Your task to perform on an android device: show emergency info Image 0: 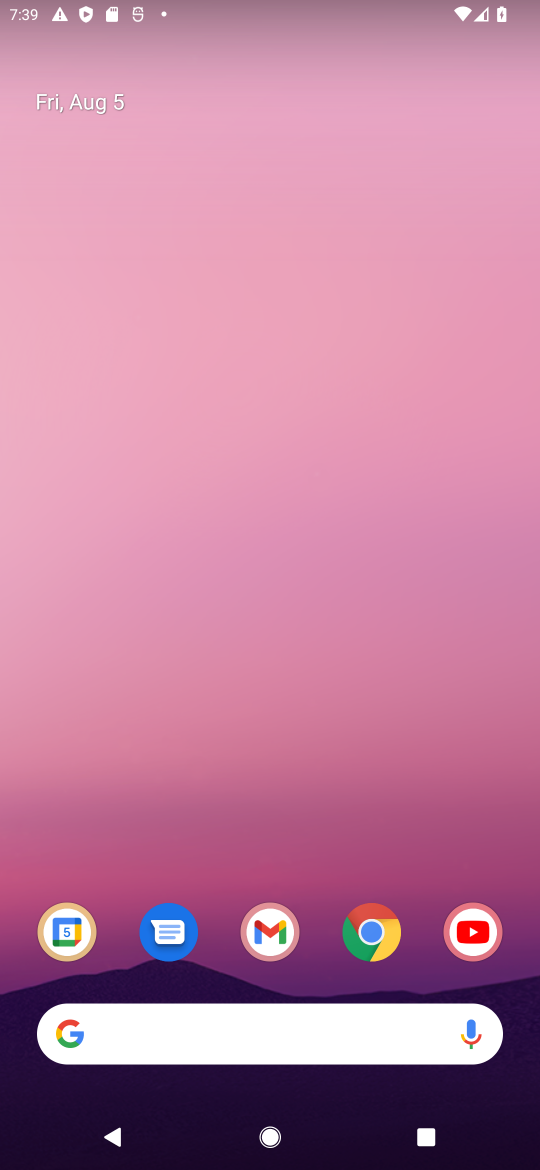
Step 0: drag from (231, 1033) to (348, 361)
Your task to perform on an android device: show emergency info Image 1: 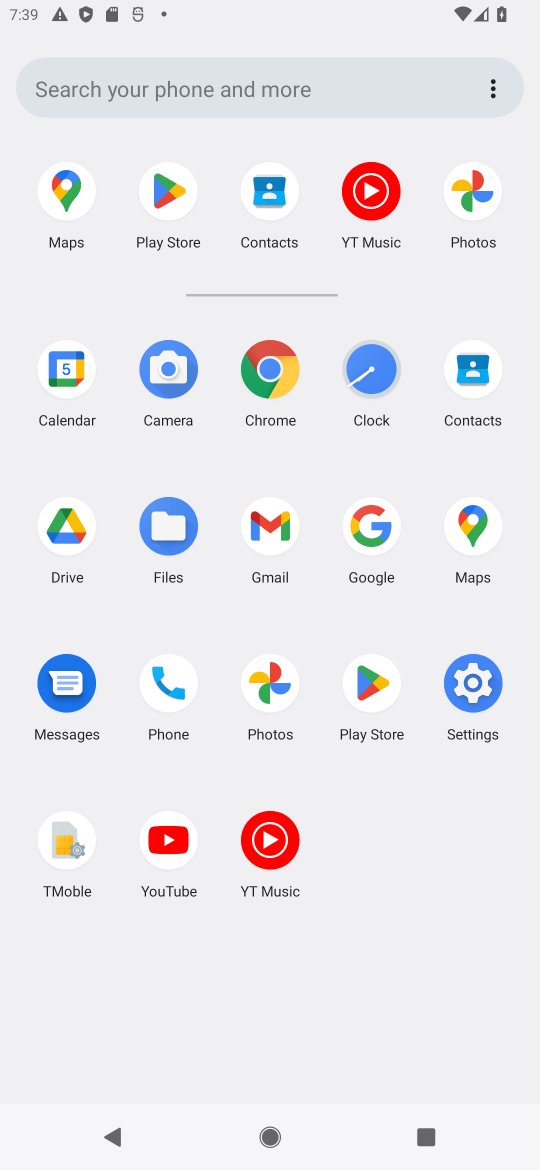
Step 1: click (469, 684)
Your task to perform on an android device: show emergency info Image 2: 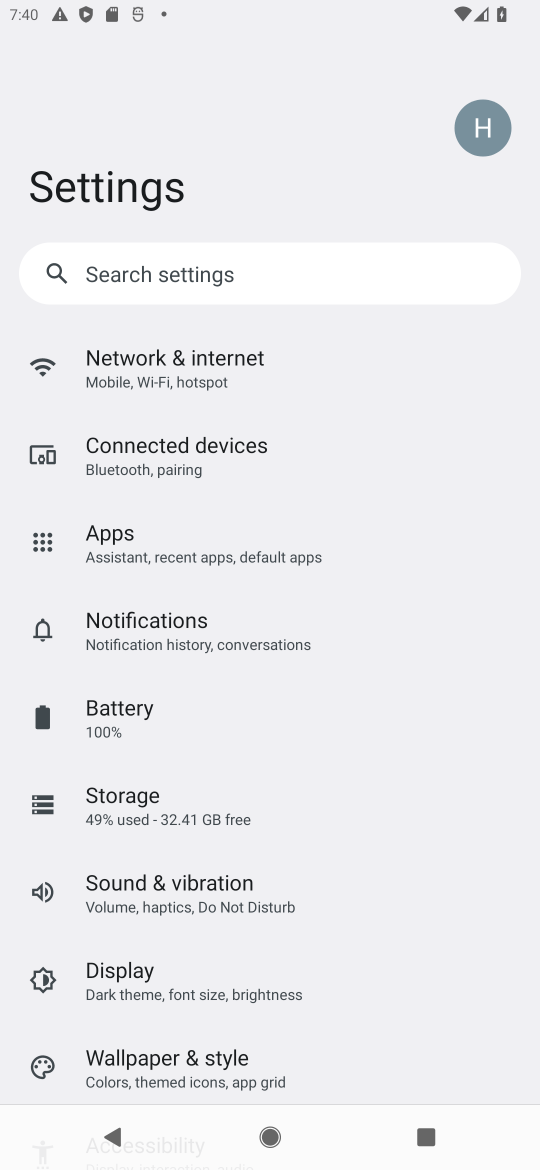
Step 2: drag from (178, 759) to (186, 583)
Your task to perform on an android device: show emergency info Image 3: 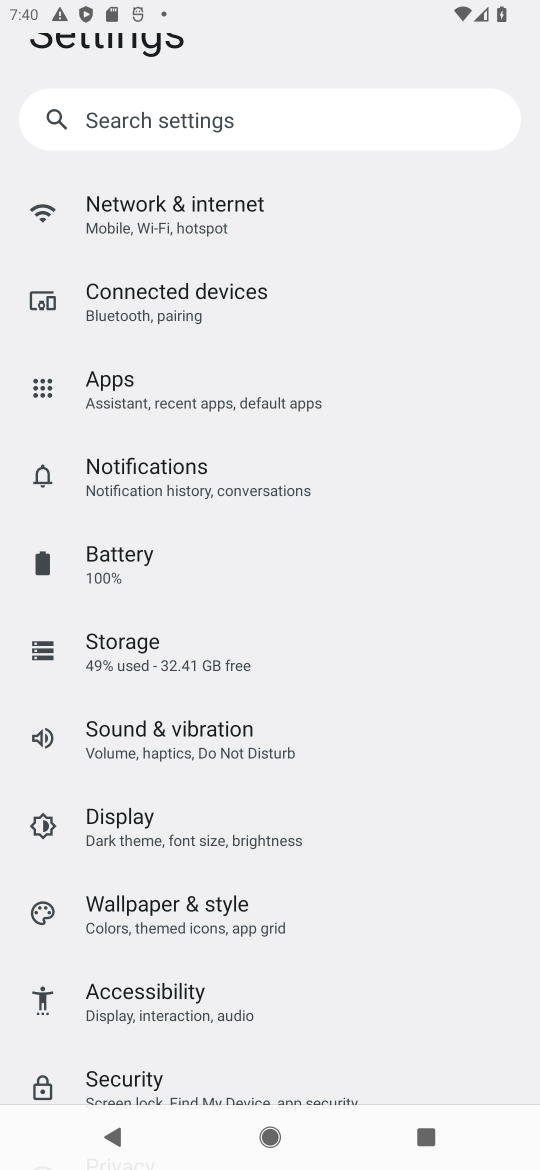
Step 3: drag from (184, 782) to (209, 598)
Your task to perform on an android device: show emergency info Image 4: 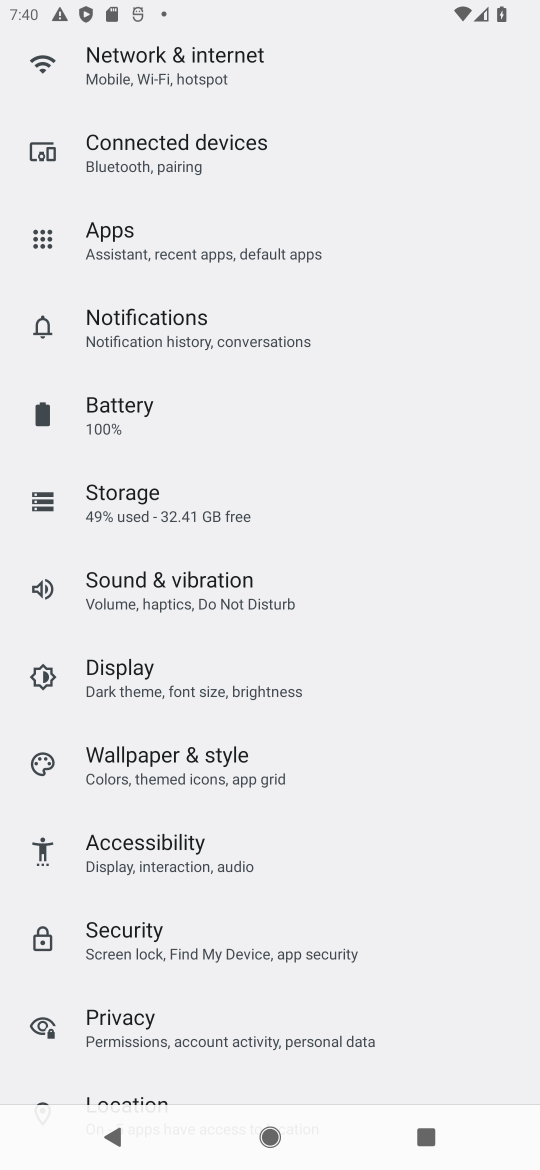
Step 4: drag from (161, 789) to (219, 627)
Your task to perform on an android device: show emergency info Image 5: 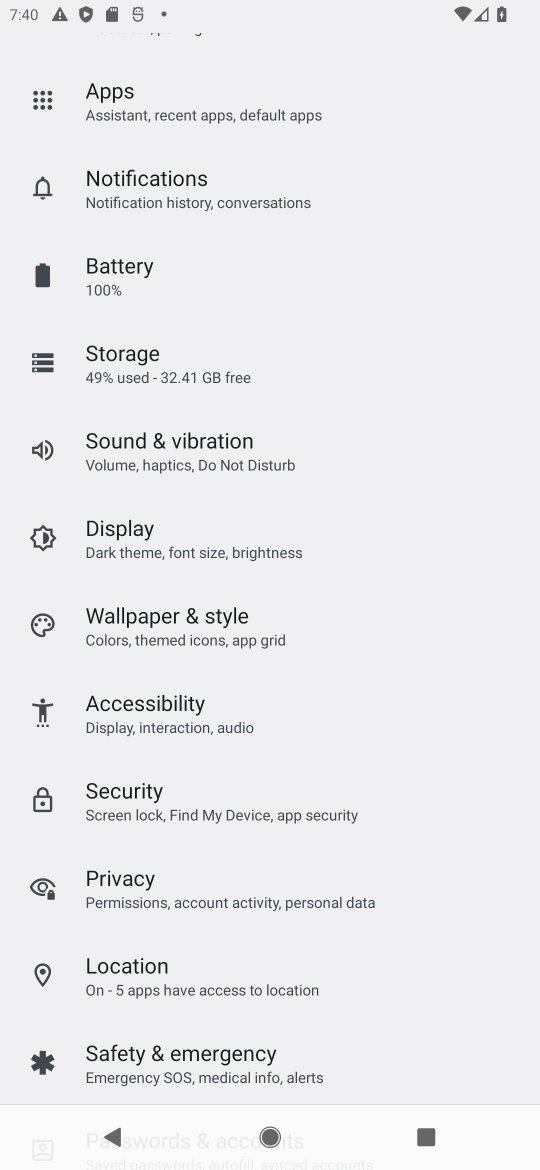
Step 5: drag from (168, 848) to (242, 682)
Your task to perform on an android device: show emergency info Image 6: 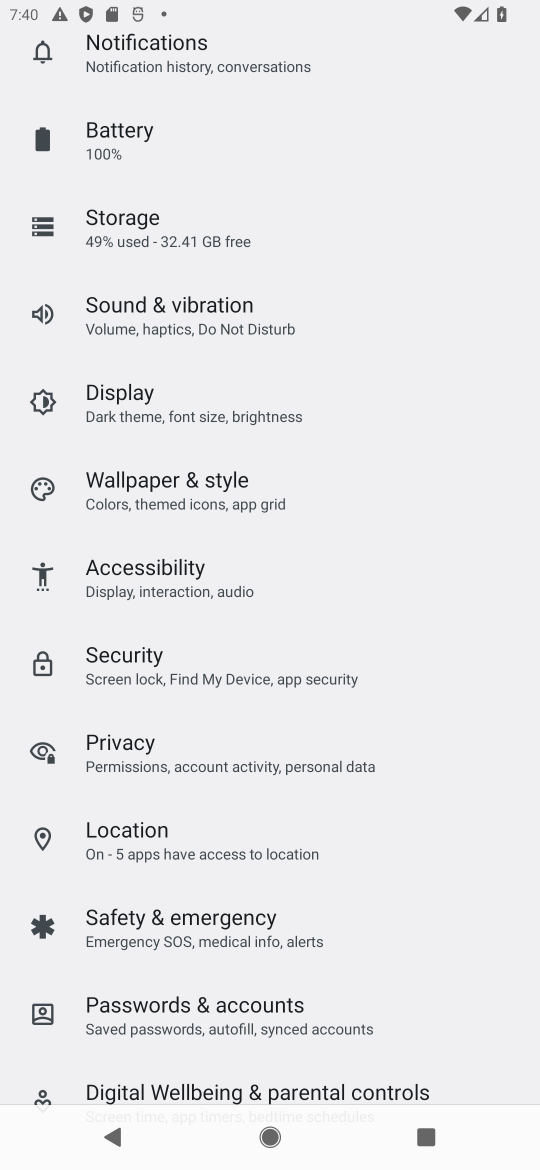
Step 6: drag from (199, 874) to (282, 686)
Your task to perform on an android device: show emergency info Image 7: 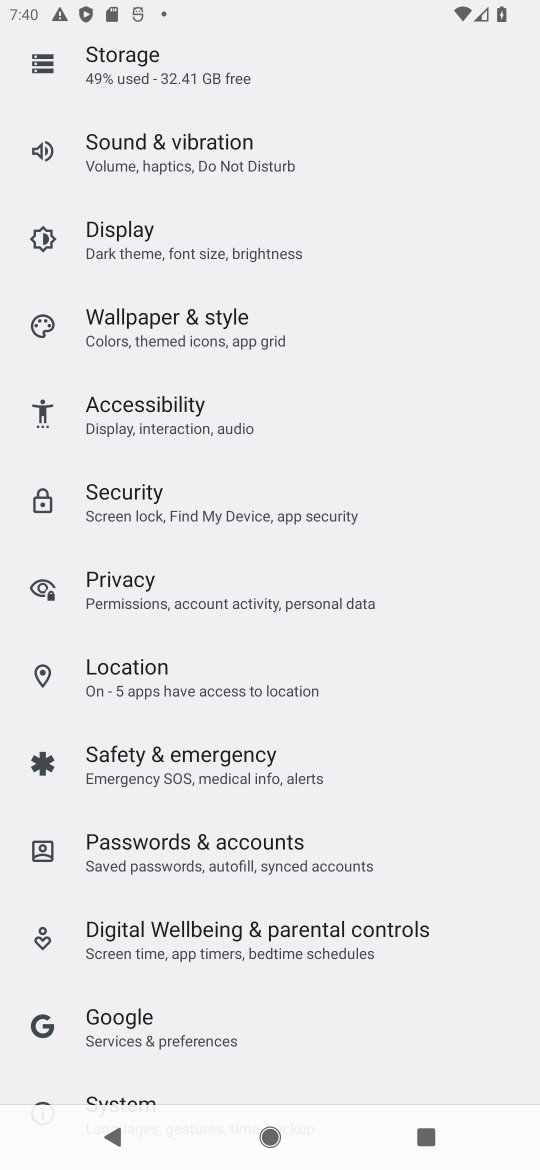
Step 7: click (234, 764)
Your task to perform on an android device: show emergency info Image 8: 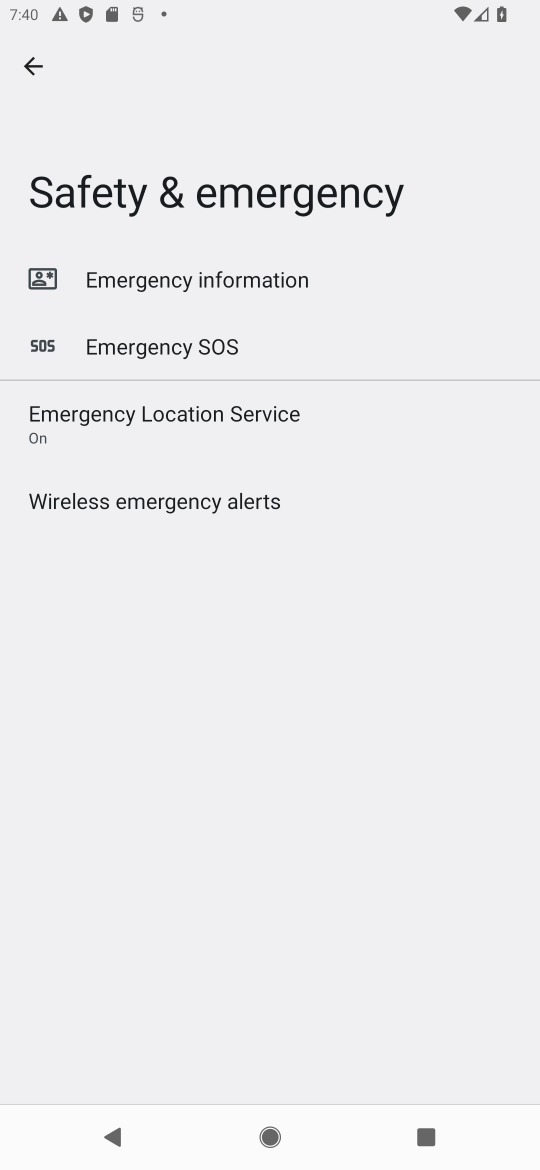
Step 8: click (283, 281)
Your task to perform on an android device: show emergency info Image 9: 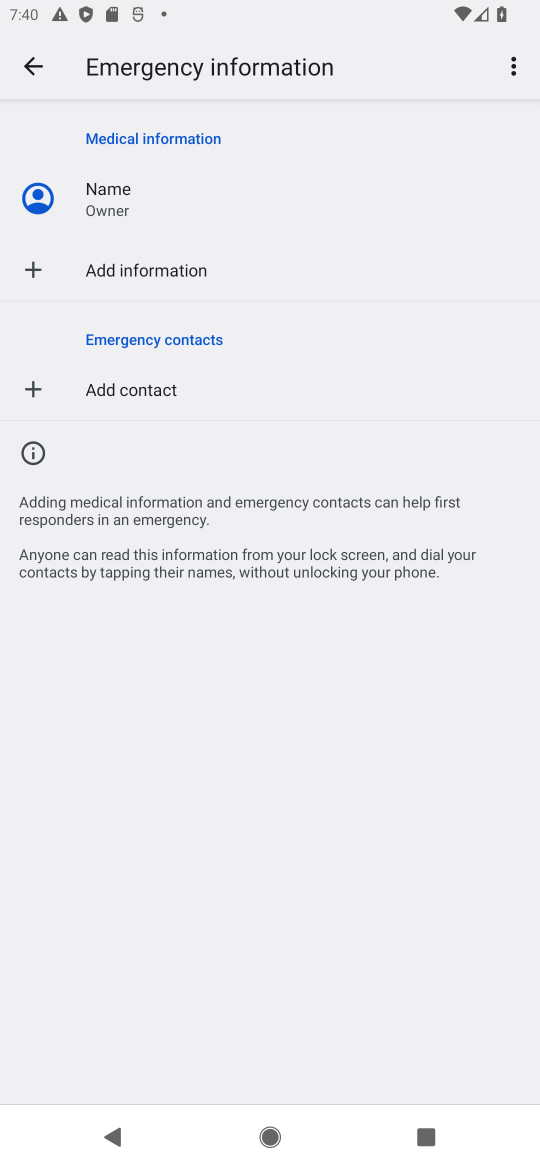
Step 9: task complete